Your task to perform on an android device: turn on bluetooth scan Image 0: 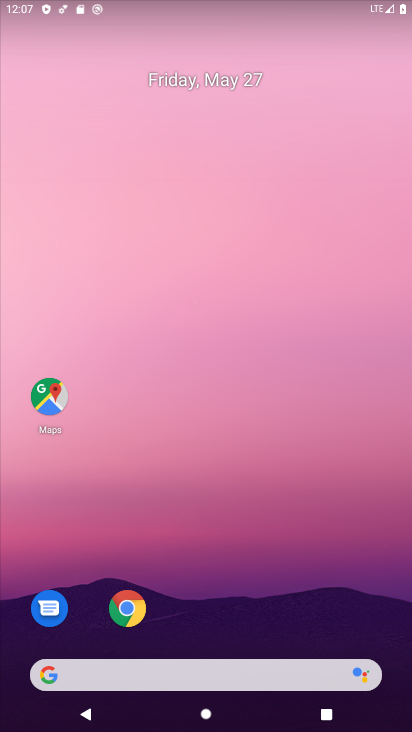
Step 0: press home button
Your task to perform on an android device: turn on bluetooth scan Image 1: 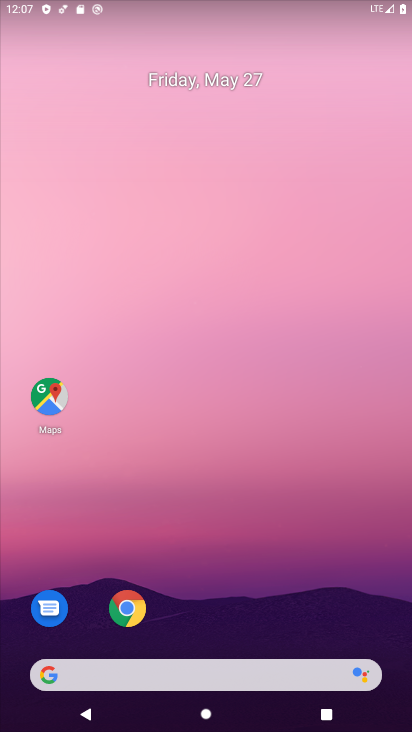
Step 1: drag from (140, 670) to (312, 98)
Your task to perform on an android device: turn on bluetooth scan Image 2: 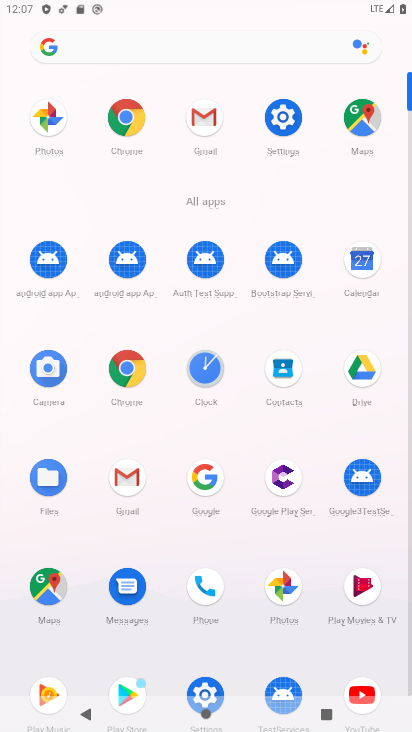
Step 2: click (277, 122)
Your task to perform on an android device: turn on bluetooth scan Image 3: 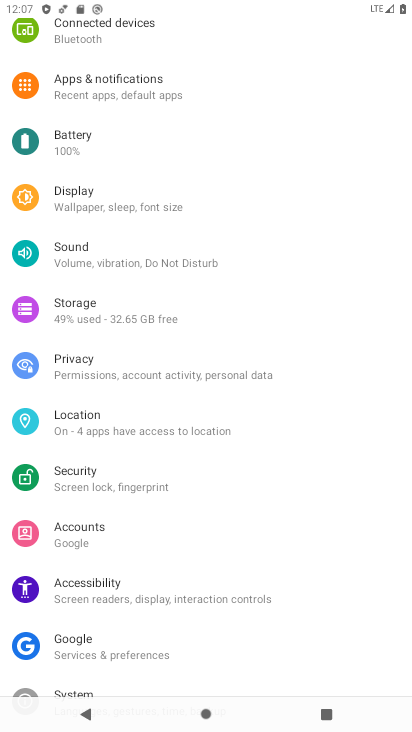
Step 3: click (86, 415)
Your task to perform on an android device: turn on bluetooth scan Image 4: 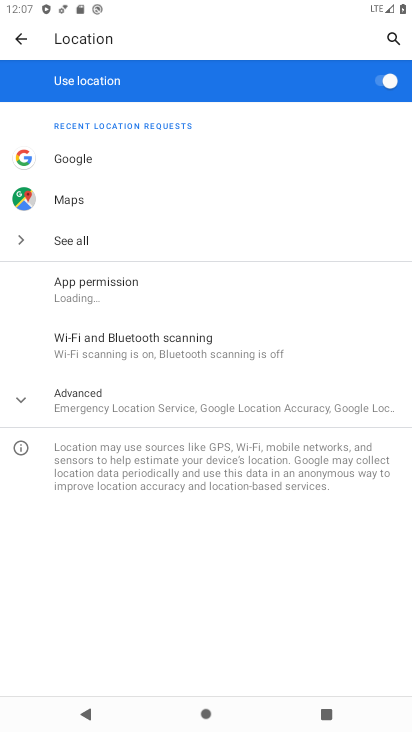
Step 4: click (160, 339)
Your task to perform on an android device: turn on bluetooth scan Image 5: 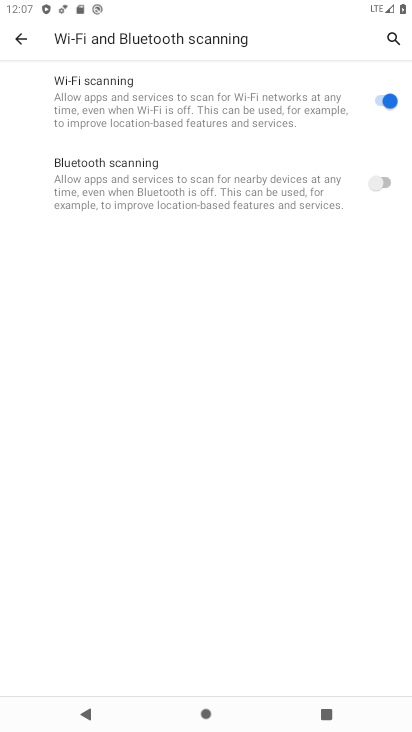
Step 5: click (383, 180)
Your task to perform on an android device: turn on bluetooth scan Image 6: 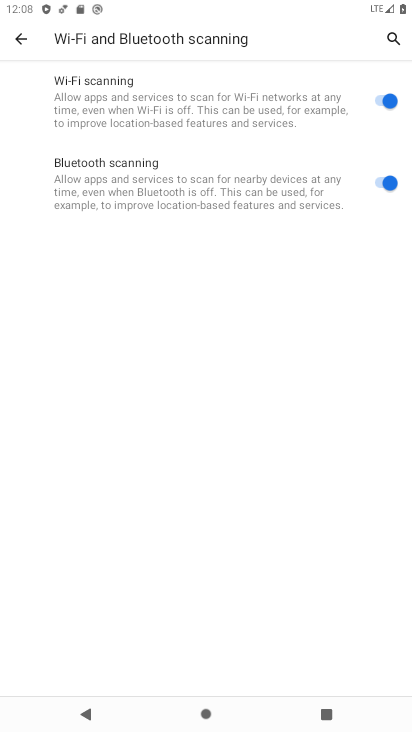
Step 6: task complete